Your task to perform on an android device: create a new album in the google photos Image 0: 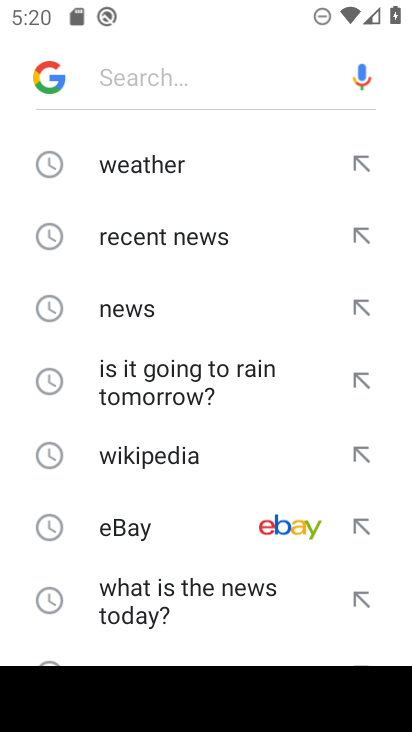
Step 0: press home button
Your task to perform on an android device: create a new album in the google photos Image 1: 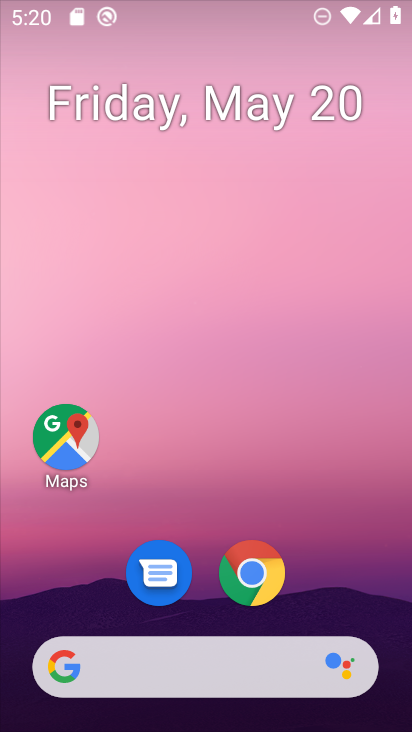
Step 1: drag from (267, 374) to (171, 1)
Your task to perform on an android device: create a new album in the google photos Image 2: 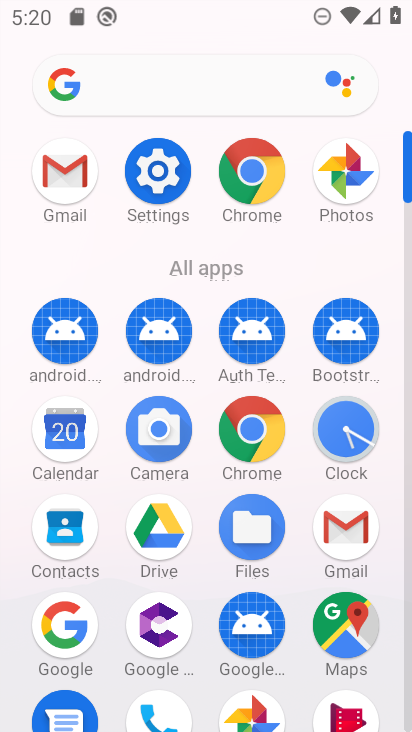
Step 2: click (266, 709)
Your task to perform on an android device: create a new album in the google photos Image 3: 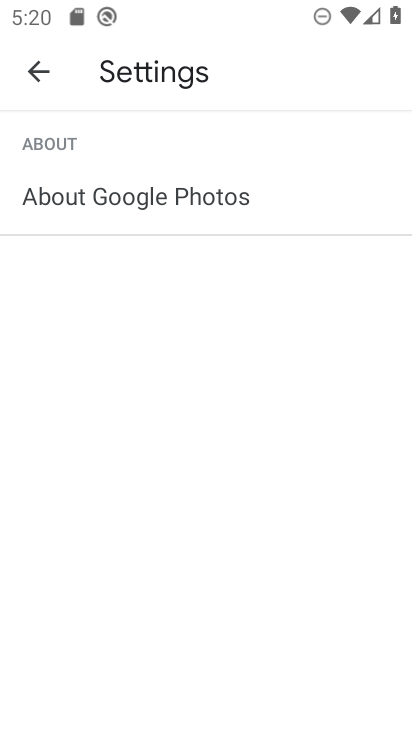
Step 3: click (37, 69)
Your task to perform on an android device: create a new album in the google photos Image 4: 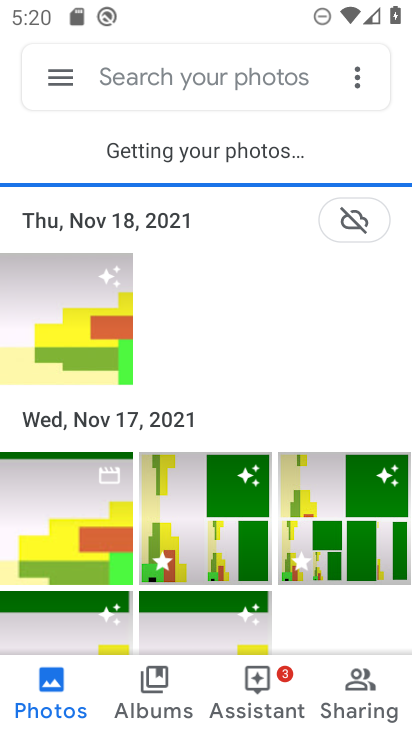
Step 4: click (155, 683)
Your task to perform on an android device: create a new album in the google photos Image 5: 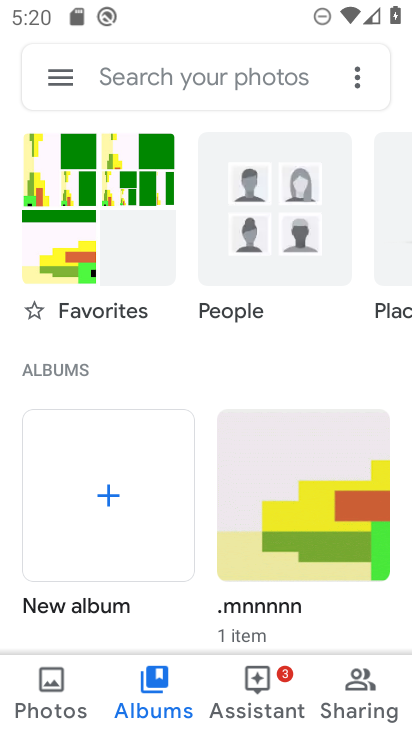
Step 5: click (124, 487)
Your task to perform on an android device: create a new album in the google photos Image 6: 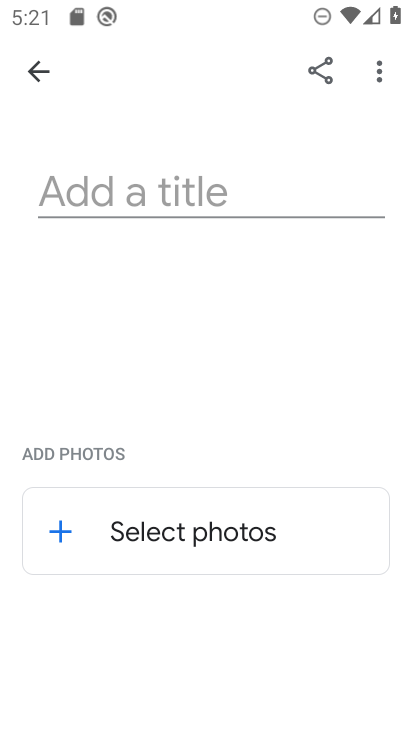
Step 6: click (138, 190)
Your task to perform on an android device: create a new album in the google photos Image 7: 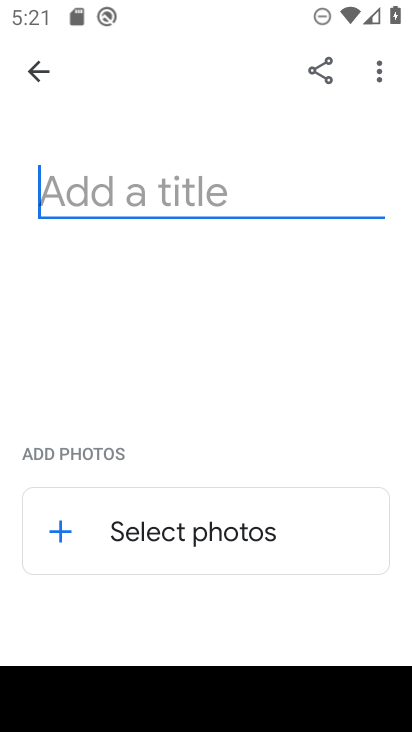
Step 7: type "hkkjh"
Your task to perform on an android device: create a new album in the google photos Image 8: 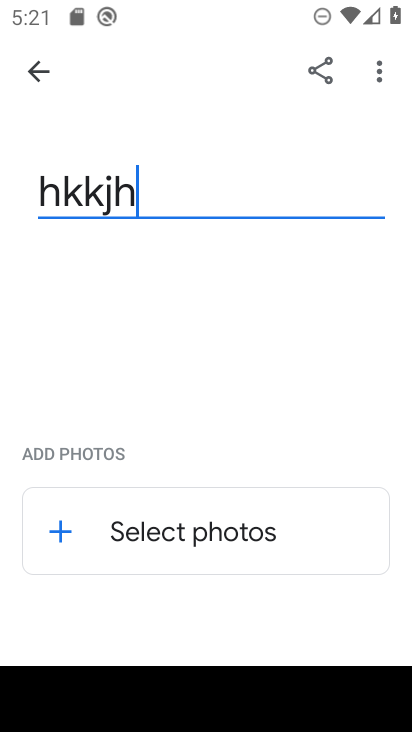
Step 8: type ""
Your task to perform on an android device: create a new album in the google photos Image 9: 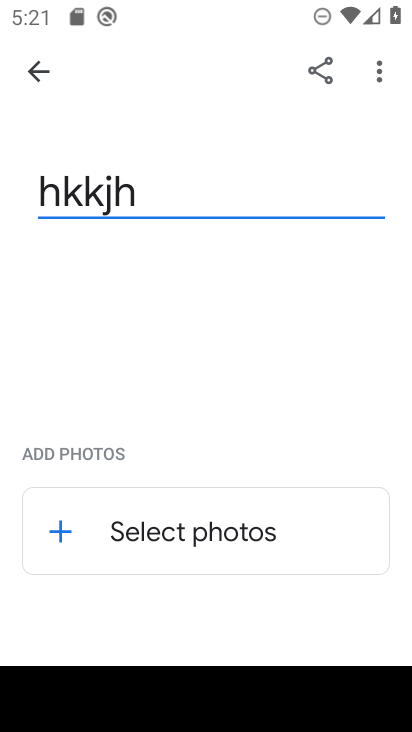
Step 9: click (170, 524)
Your task to perform on an android device: create a new album in the google photos Image 10: 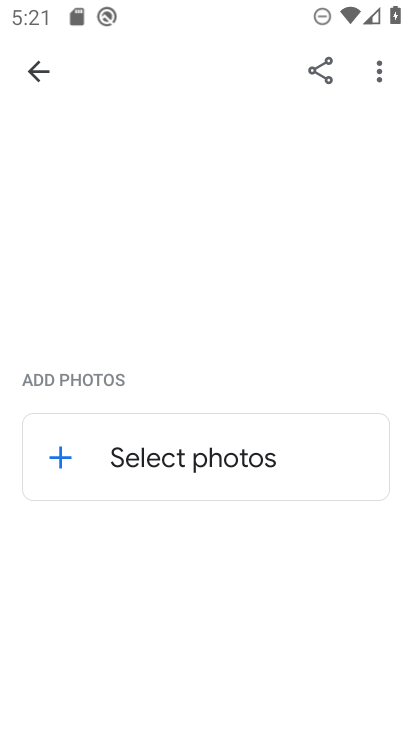
Step 10: click (156, 477)
Your task to perform on an android device: create a new album in the google photos Image 11: 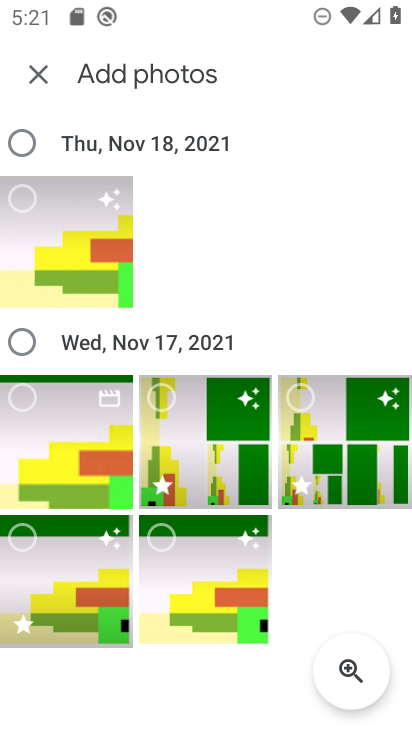
Step 11: click (110, 230)
Your task to perform on an android device: create a new album in the google photos Image 12: 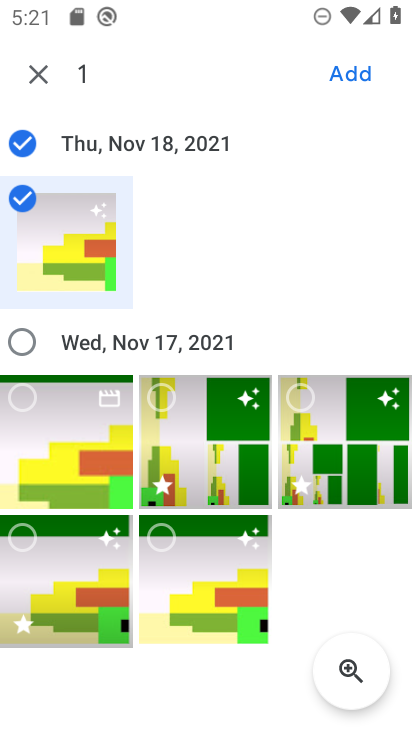
Step 12: click (200, 466)
Your task to perform on an android device: create a new album in the google photos Image 13: 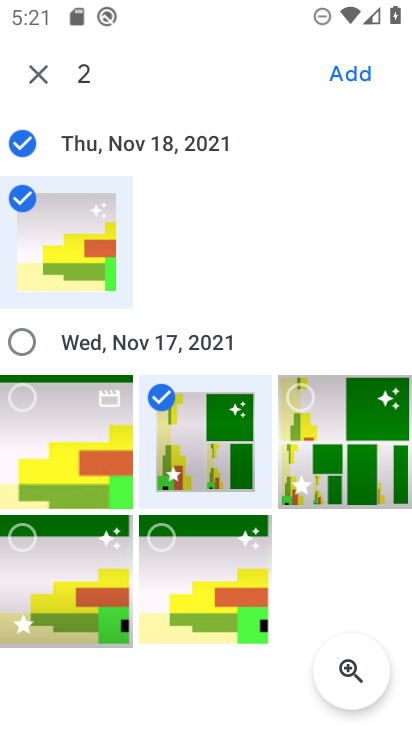
Step 13: click (349, 74)
Your task to perform on an android device: create a new album in the google photos Image 14: 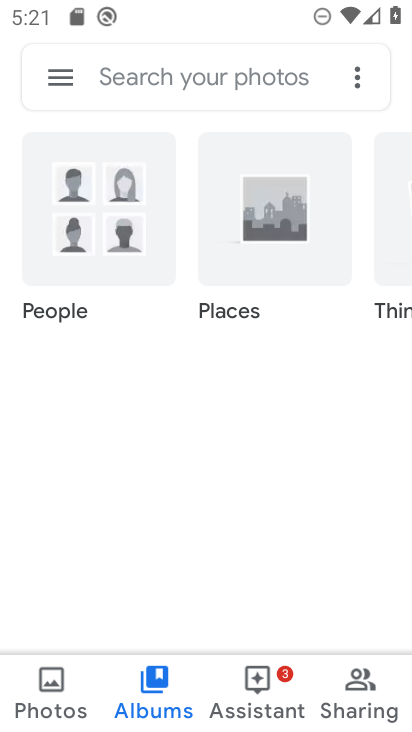
Step 14: task complete